Your task to perform on an android device: Show me productivity apps on the Play Store Image 0: 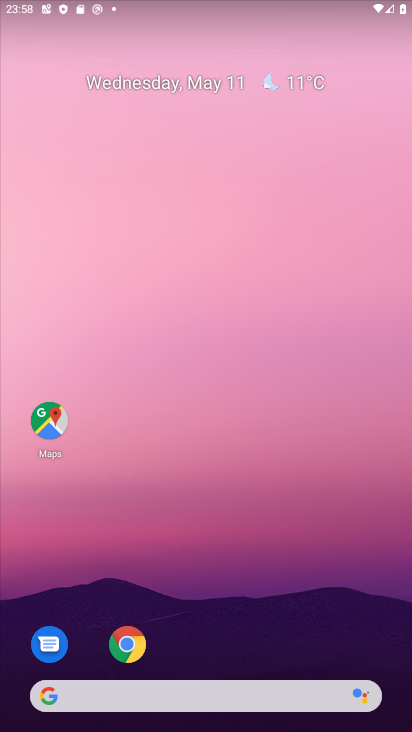
Step 0: drag from (278, 664) to (316, 13)
Your task to perform on an android device: Show me productivity apps on the Play Store Image 1: 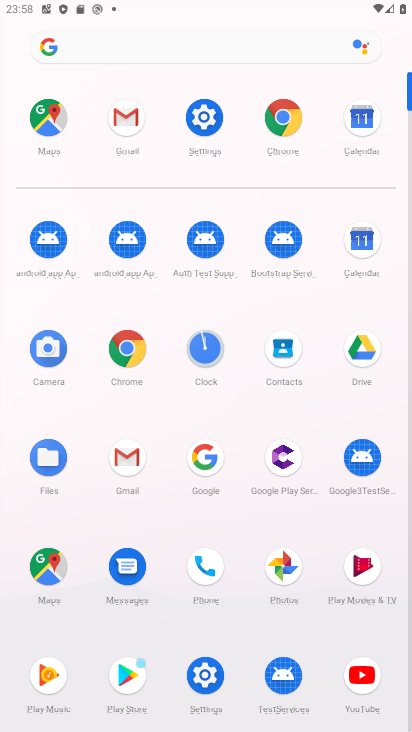
Step 1: click (130, 672)
Your task to perform on an android device: Show me productivity apps on the Play Store Image 2: 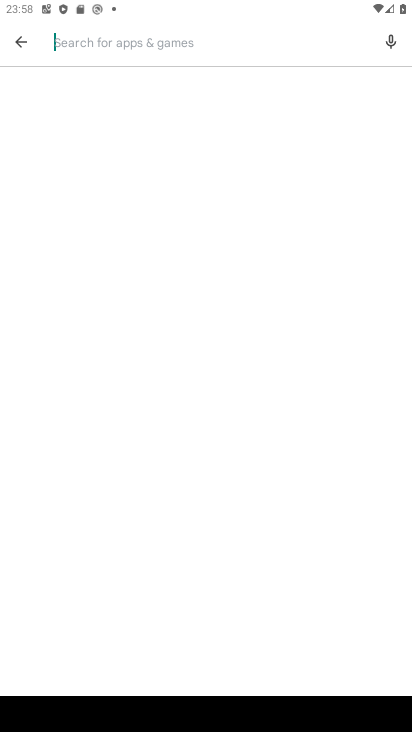
Step 2: click (16, 37)
Your task to perform on an android device: Show me productivity apps on the Play Store Image 3: 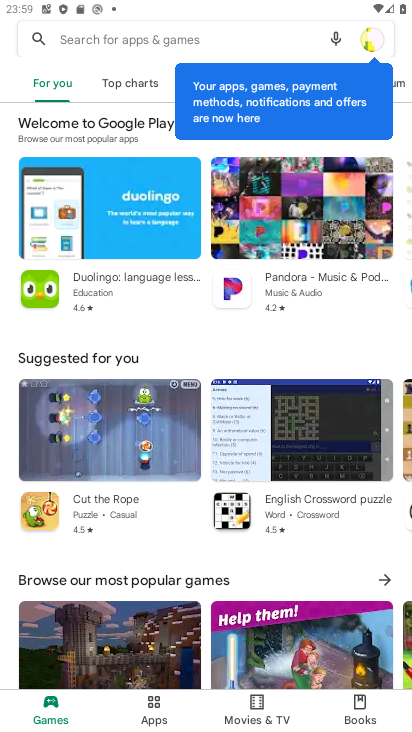
Step 3: click (148, 693)
Your task to perform on an android device: Show me productivity apps on the Play Store Image 4: 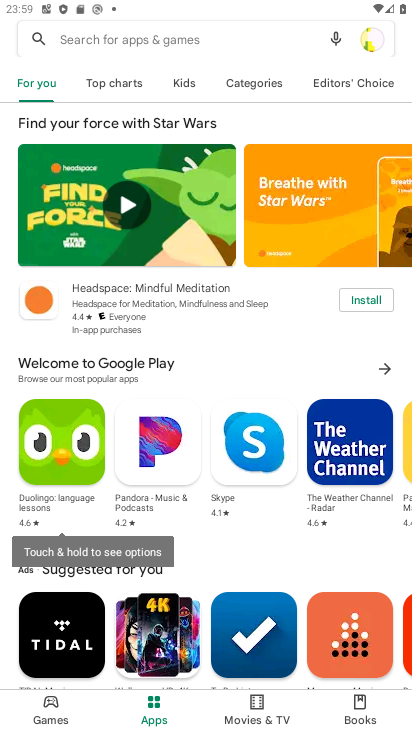
Step 4: click (246, 90)
Your task to perform on an android device: Show me productivity apps on the Play Store Image 5: 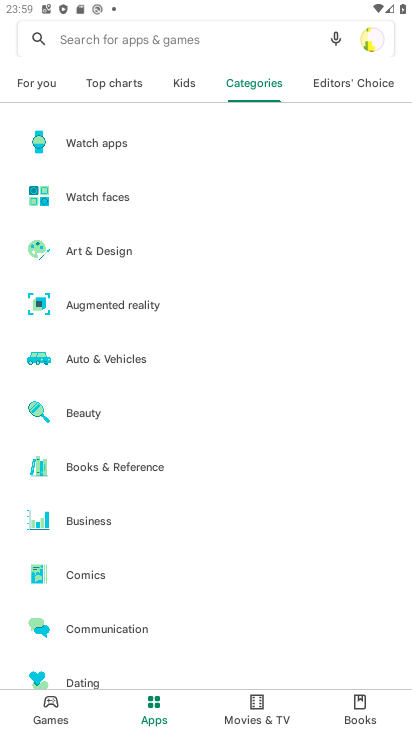
Step 5: drag from (149, 666) to (193, 0)
Your task to perform on an android device: Show me productivity apps on the Play Store Image 6: 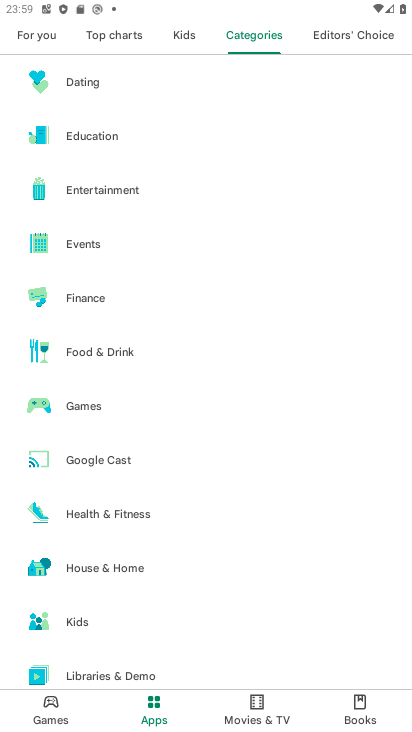
Step 6: drag from (152, 665) to (152, 35)
Your task to perform on an android device: Show me productivity apps on the Play Store Image 7: 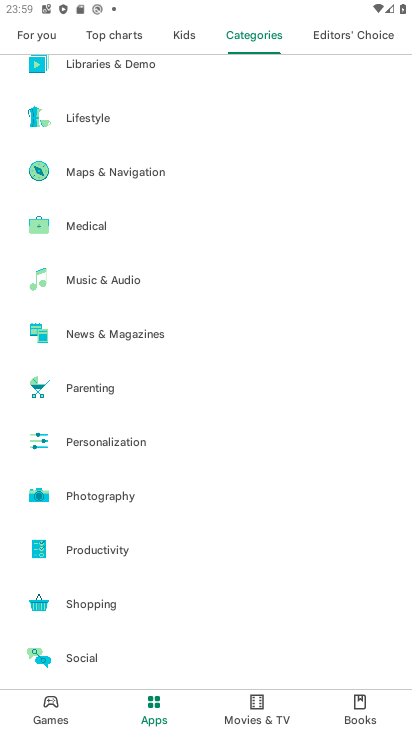
Step 7: click (102, 545)
Your task to perform on an android device: Show me productivity apps on the Play Store Image 8: 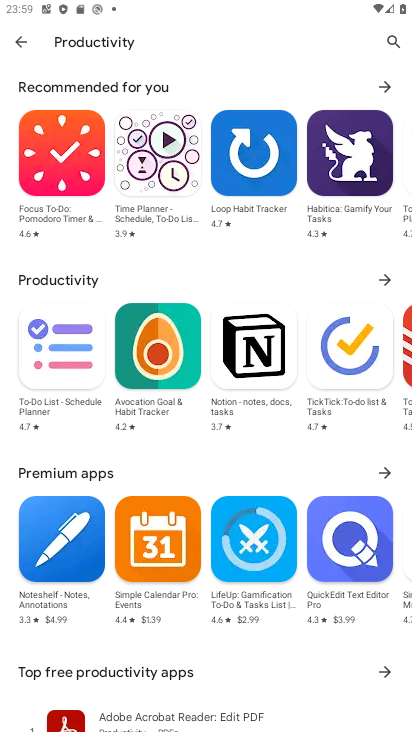
Step 8: task complete